Your task to perform on an android device: Open Wikipedia Image 0: 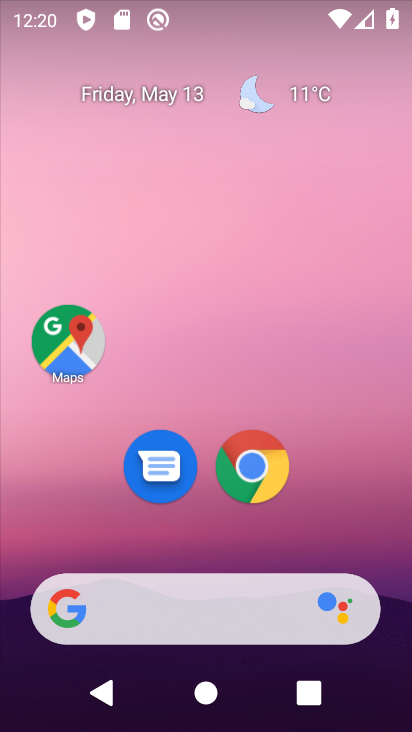
Step 0: click (277, 458)
Your task to perform on an android device: Open Wikipedia Image 1: 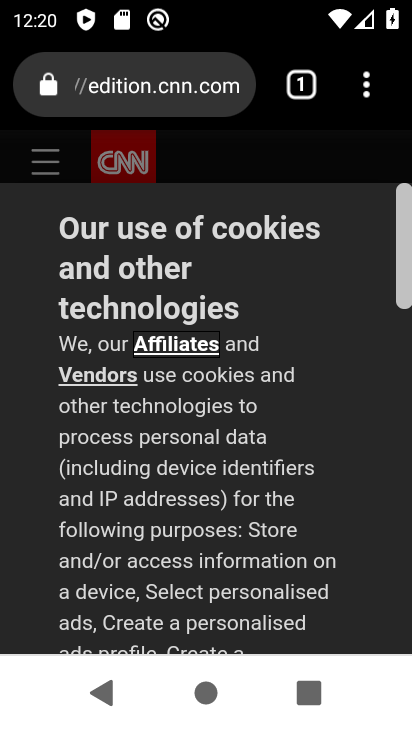
Step 1: click (312, 91)
Your task to perform on an android device: Open Wikipedia Image 2: 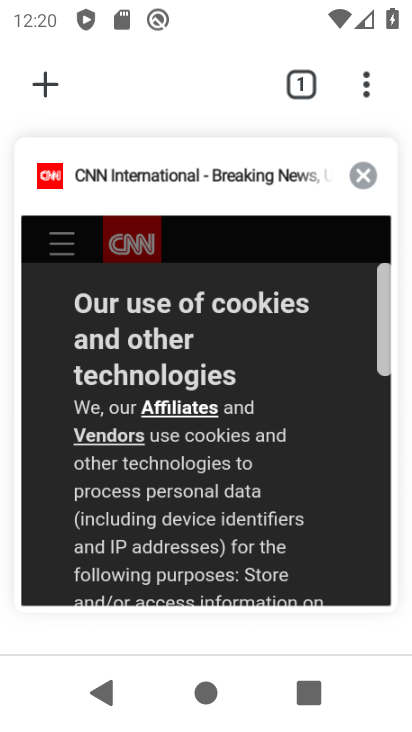
Step 2: click (363, 170)
Your task to perform on an android device: Open Wikipedia Image 3: 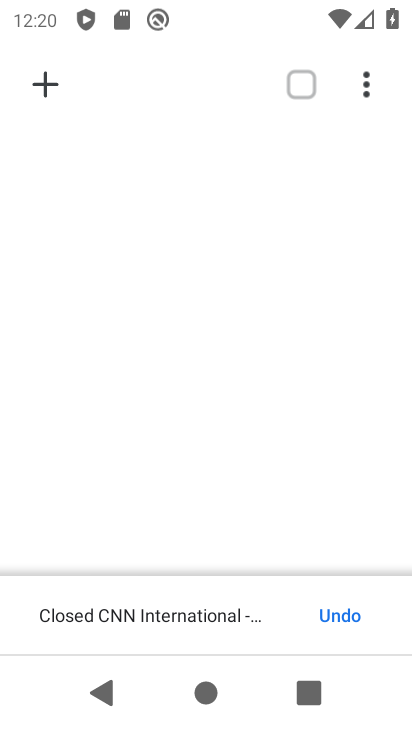
Step 3: click (51, 68)
Your task to perform on an android device: Open Wikipedia Image 4: 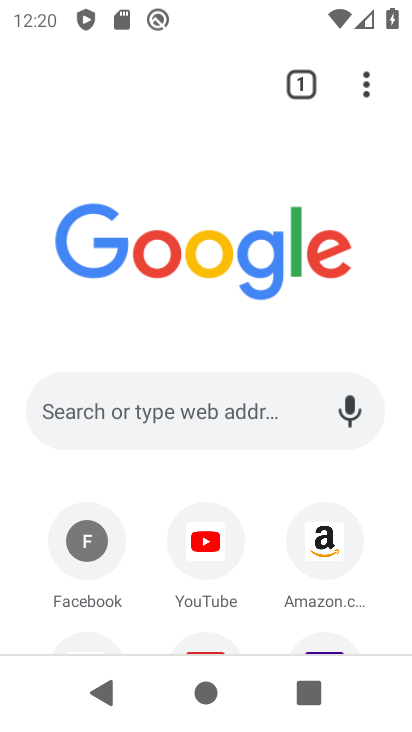
Step 4: drag from (252, 499) to (212, 400)
Your task to perform on an android device: Open Wikipedia Image 5: 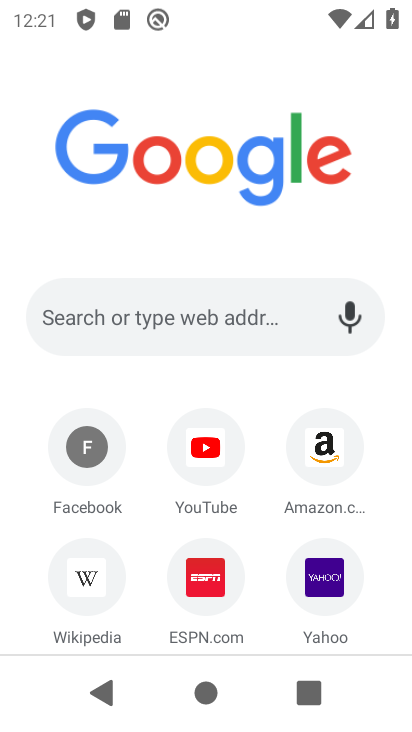
Step 5: click (79, 564)
Your task to perform on an android device: Open Wikipedia Image 6: 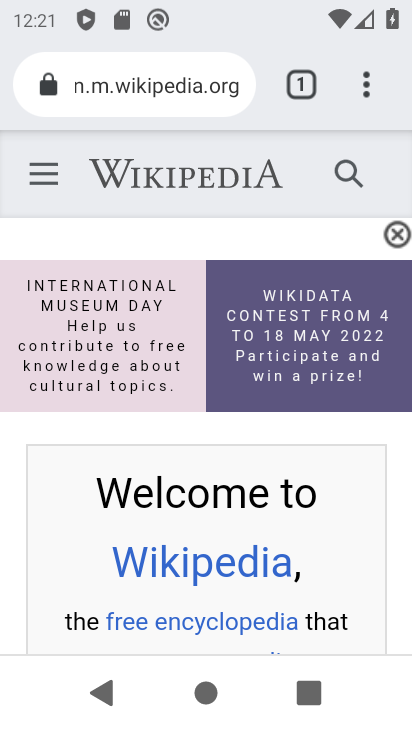
Step 6: task complete